Your task to perform on an android device: turn on the 24-hour format for clock Image 0: 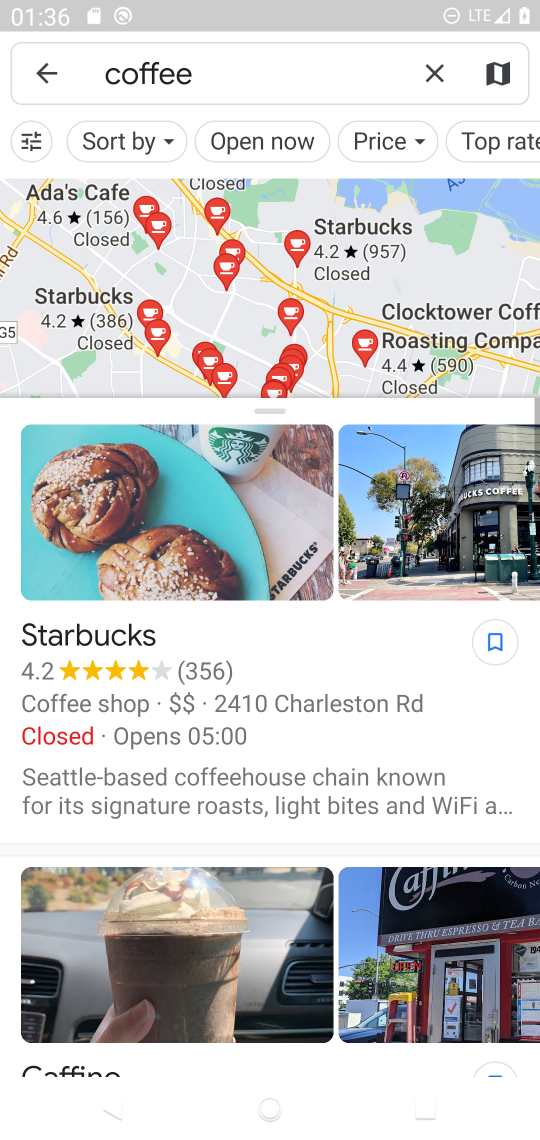
Step 0: press home button
Your task to perform on an android device: turn on the 24-hour format for clock Image 1: 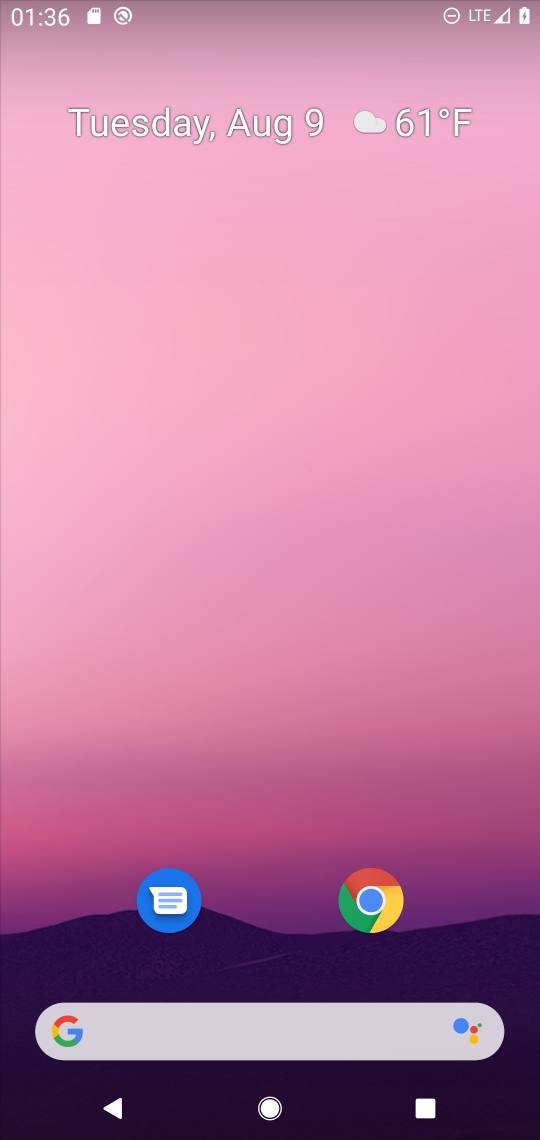
Step 1: drag from (254, 949) to (318, 107)
Your task to perform on an android device: turn on the 24-hour format for clock Image 2: 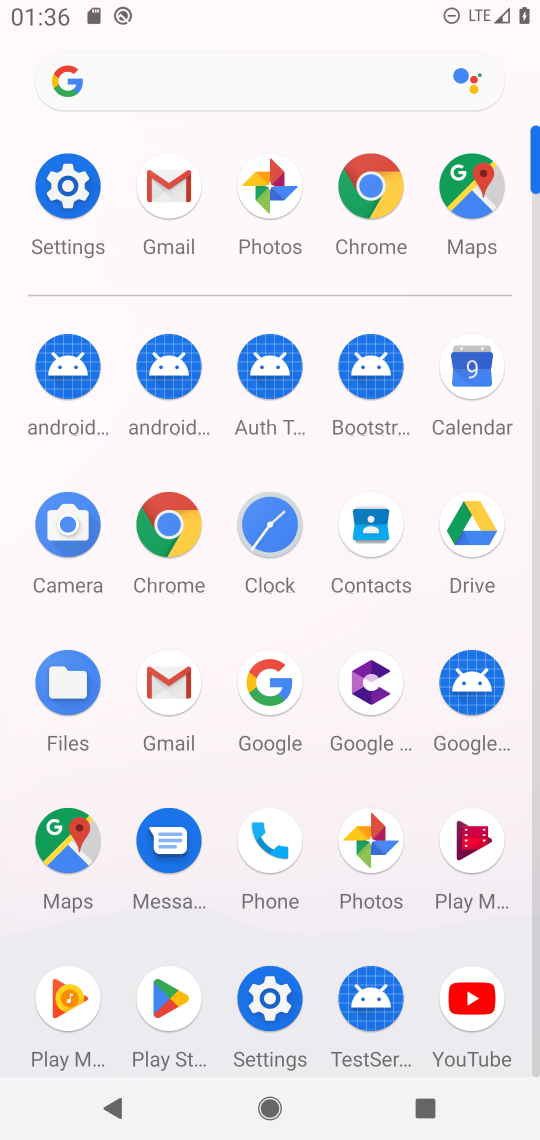
Step 2: click (265, 536)
Your task to perform on an android device: turn on the 24-hour format for clock Image 3: 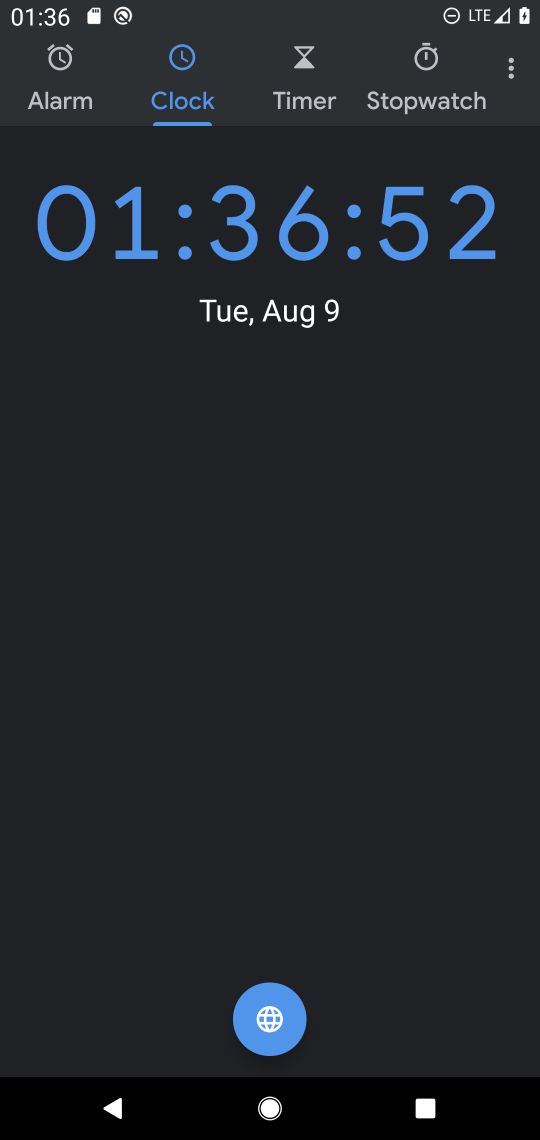
Step 3: click (513, 80)
Your task to perform on an android device: turn on the 24-hour format for clock Image 4: 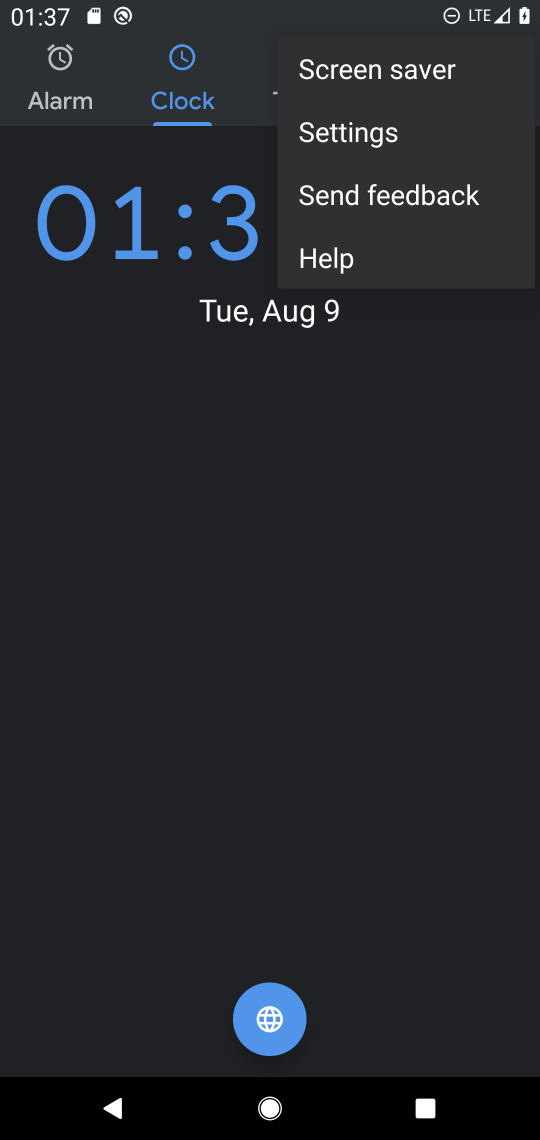
Step 4: click (345, 138)
Your task to perform on an android device: turn on the 24-hour format for clock Image 5: 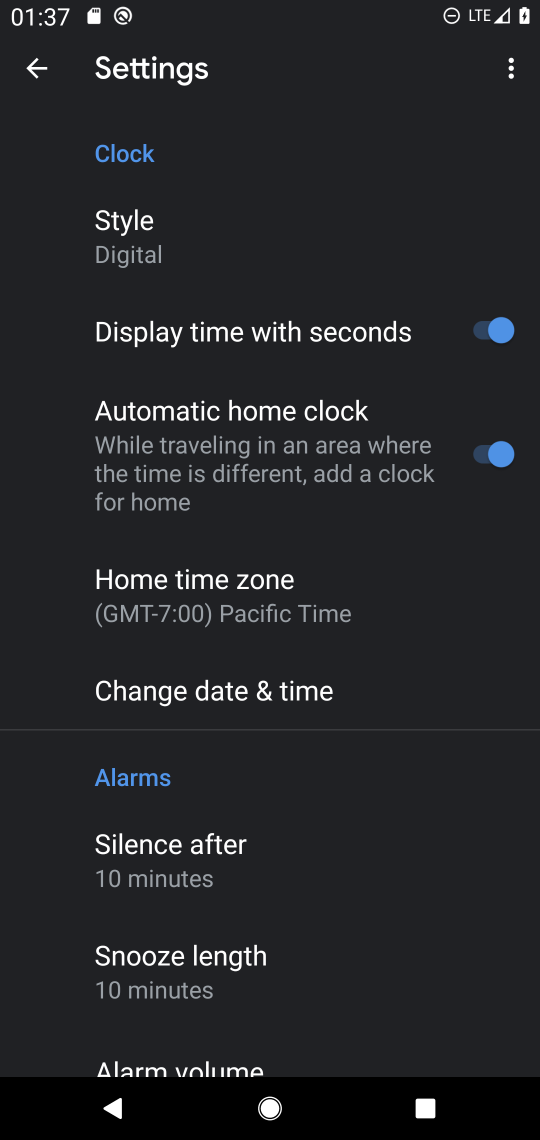
Step 5: drag from (394, 843) to (419, 407)
Your task to perform on an android device: turn on the 24-hour format for clock Image 6: 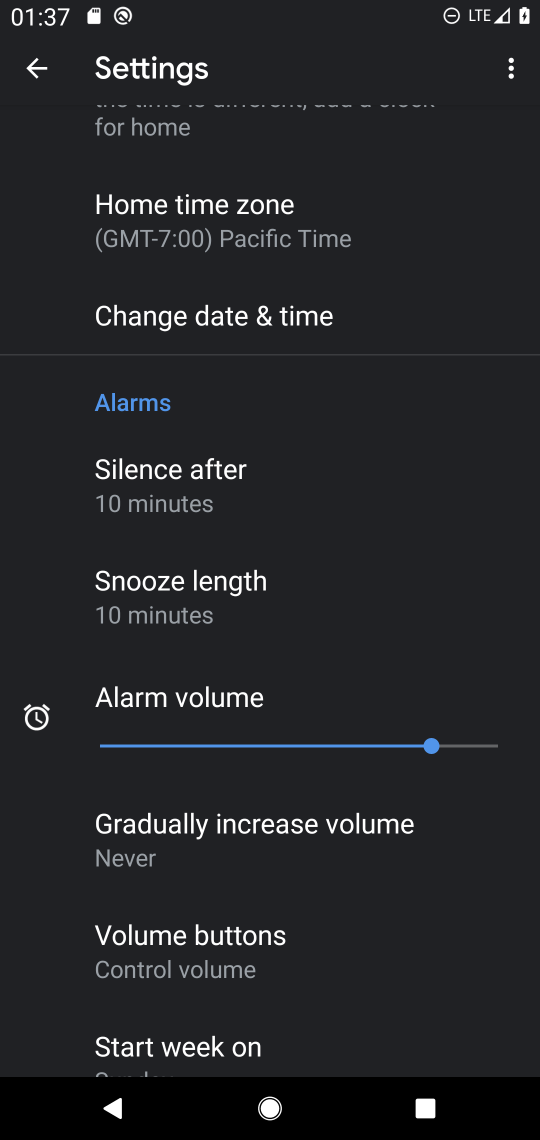
Step 6: drag from (370, 887) to (420, 349)
Your task to perform on an android device: turn on the 24-hour format for clock Image 7: 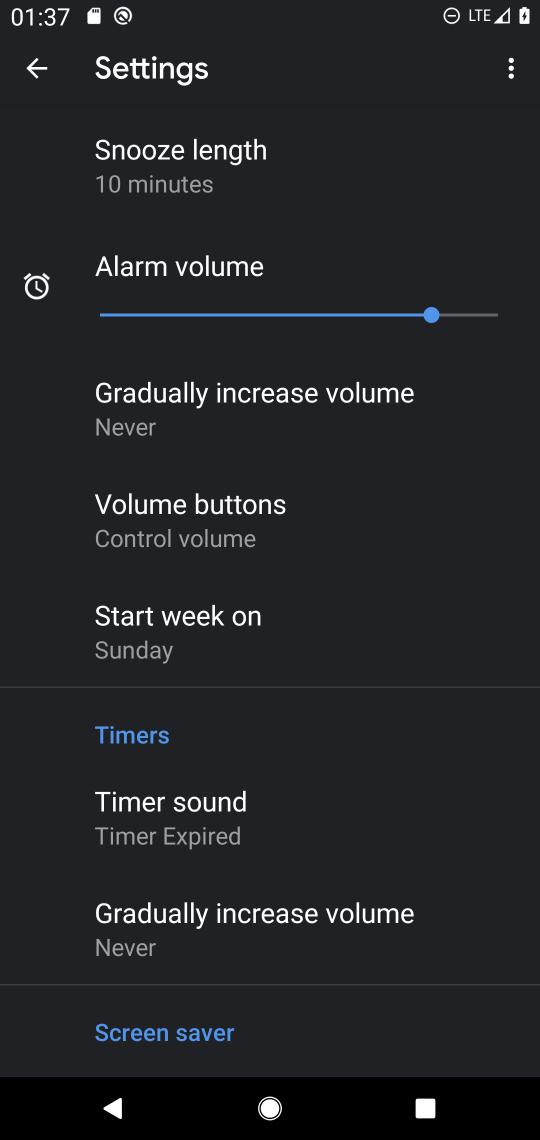
Step 7: drag from (412, 801) to (452, 325)
Your task to perform on an android device: turn on the 24-hour format for clock Image 8: 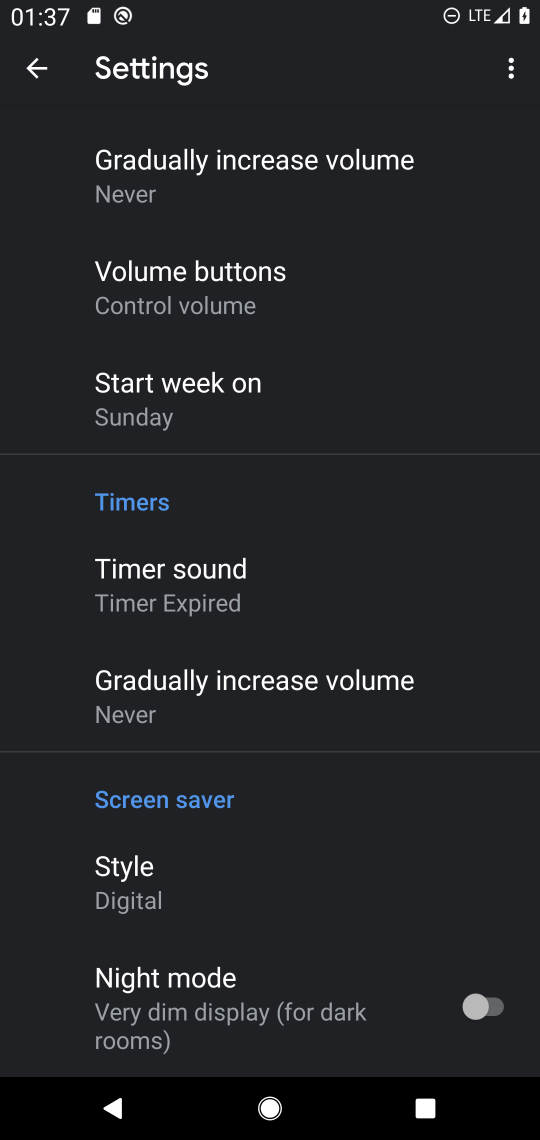
Step 8: drag from (480, 259) to (472, 659)
Your task to perform on an android device: turn on the 24-hour format for clock Image 9: 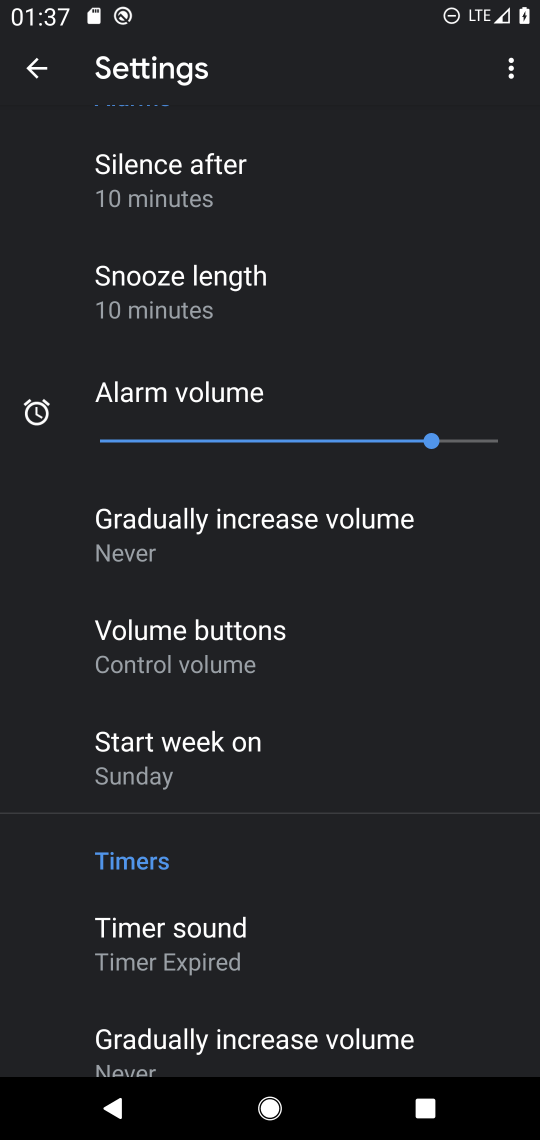
Step 9: drag from (481, 212) to (472, 662)
Your task to perform on an android device: turn on the 24-hour format for clock Image 10: 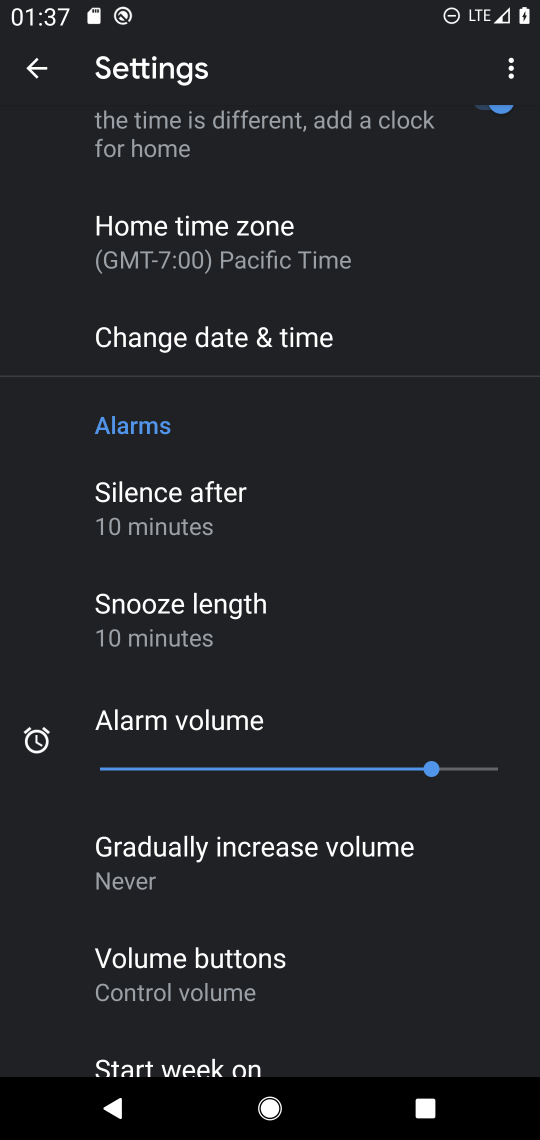
Step 10: drag from (465, 212) to (456, 606)
Your task to perform on an android device: turn on the 24-hour format for clock Image 11: 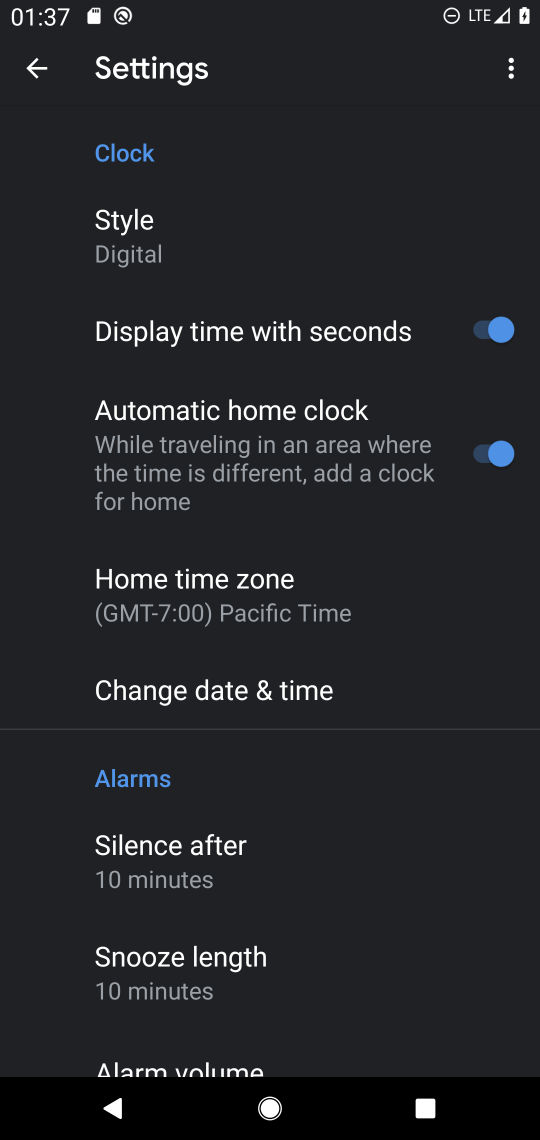
Step 11: drag from (424, 222) to (430, 615)
Your task to perform on an android device: turn on the 24-hour format for clock Image 12: 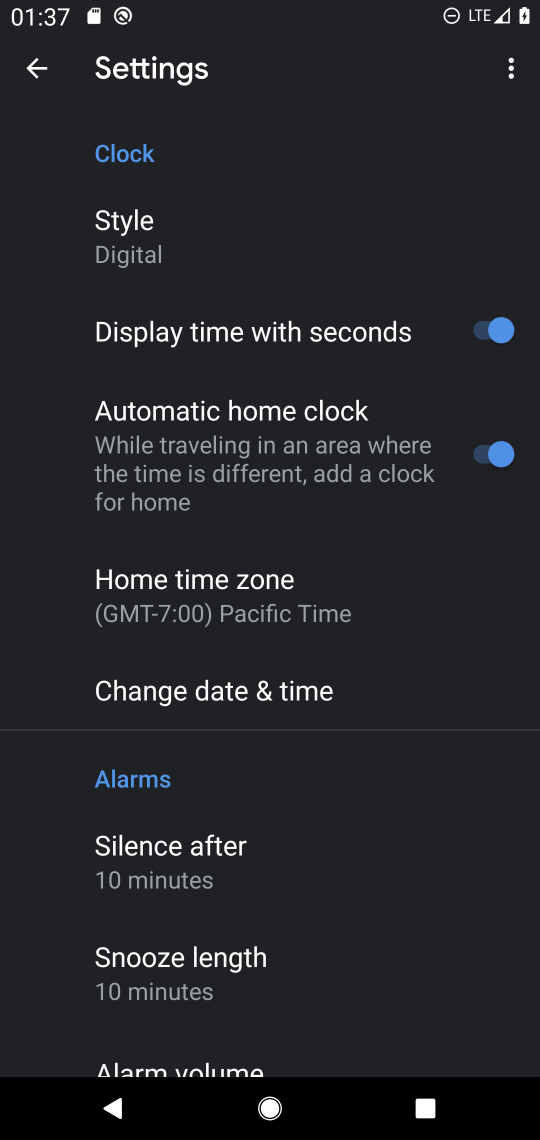
Step 12: click (286, 691)
Your task to perform on an android device: turn on the 24-hour format for clock Image 13: 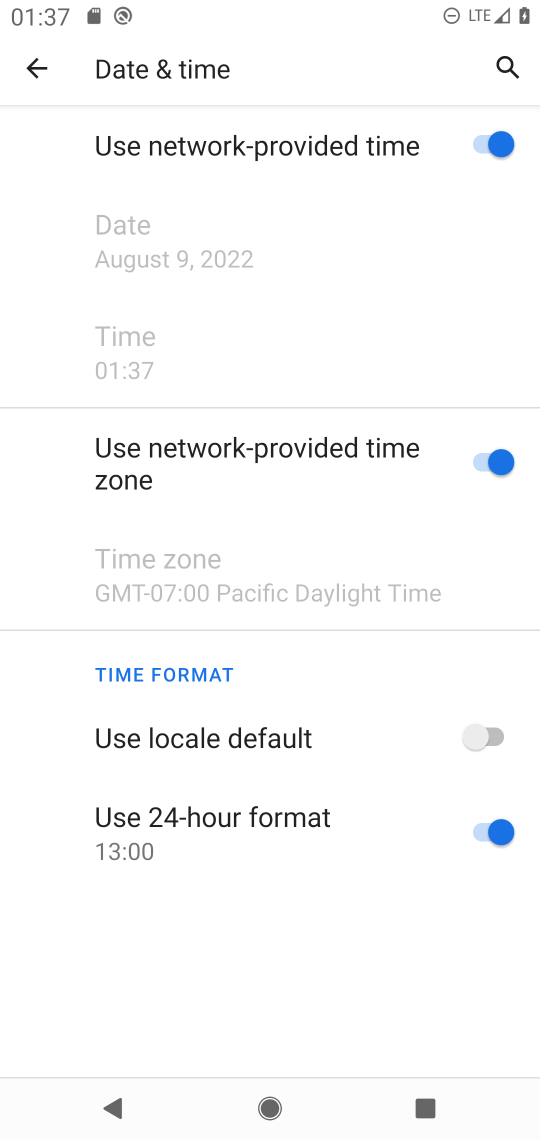
Step 13: task complete